Your task to perform on an android device: Clear the shopping cart on ebay.com. Search for "macbook pro" on ebay.com, select the first entry, add it to the cart, then select checkout. Image 0: 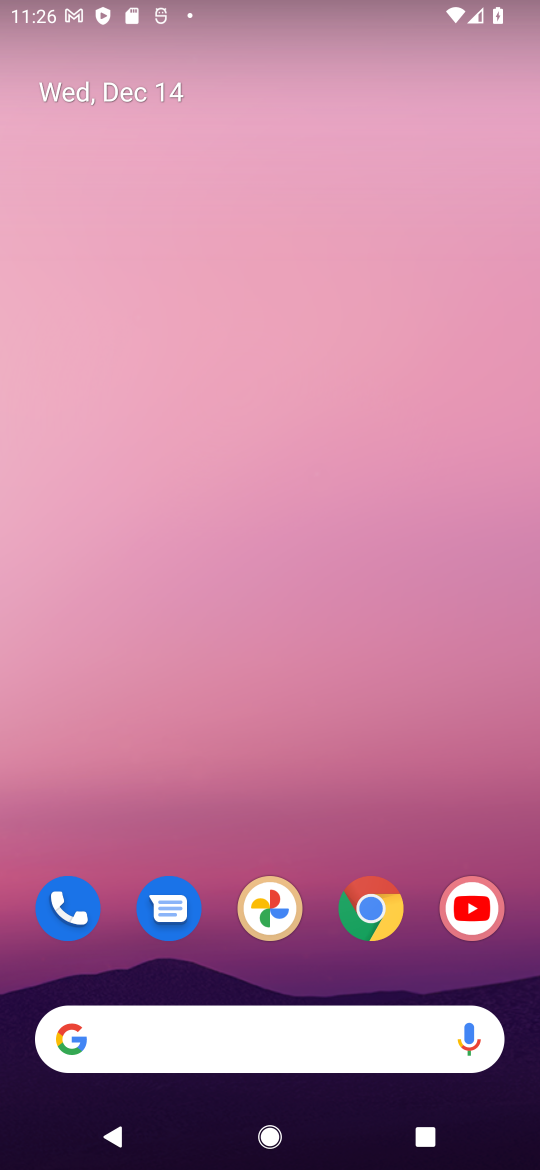
Step 0: click (375, 907)
Your task to perform on an android device: Clear the shopping cart on ebay.com. Search for "macbook pro" on ebay.com, select the first entry, add it to the cart, then select checkout. Image 1: 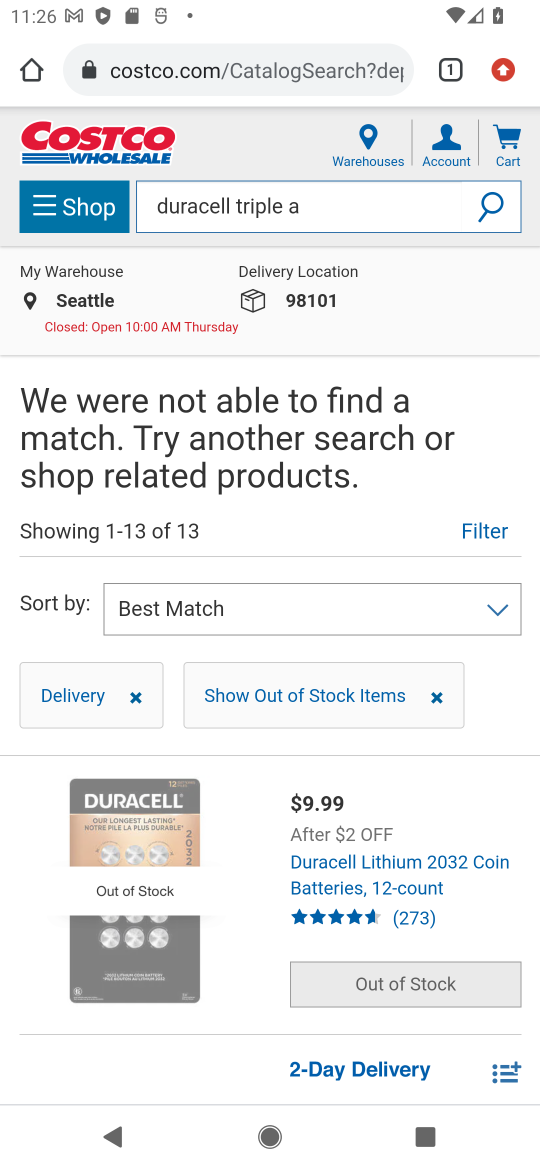
Step 1: click (186, 71)
Your task to perform on an android device: Clear the shopping cart on ebay.com. Search for "macbook pro" on ebay.com, select the first entry, add it to the cart, then select checkout. Image 2: 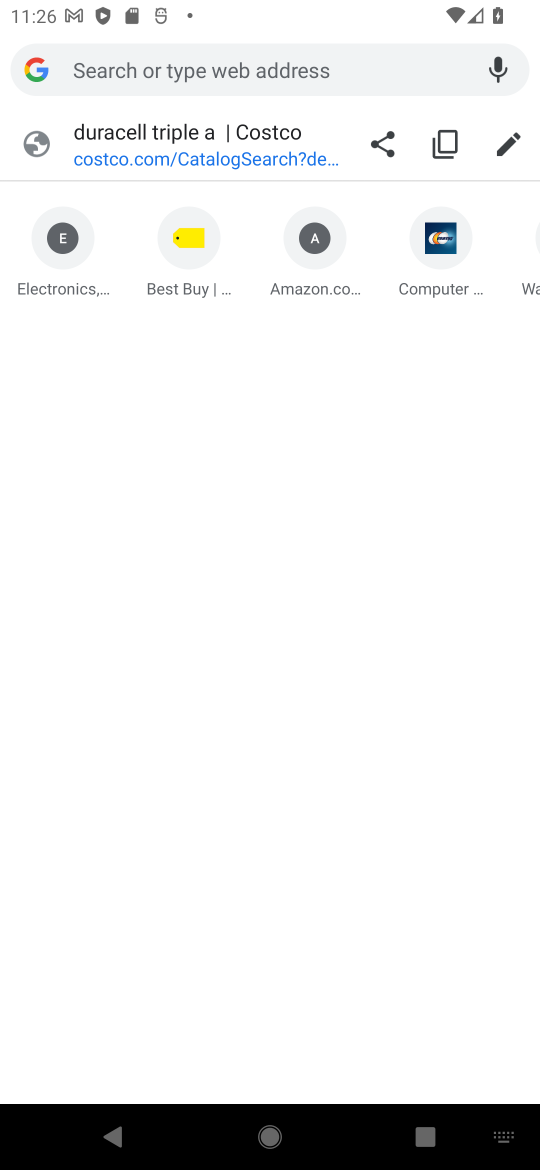
Step 2: type "ebay.com"
Your task to perform on an android device: Clear the shopping cart on ebay.com. Search for "macbook pro" on ebay.com, select the first entry, add it to the cart, then select checkout. Image 3: 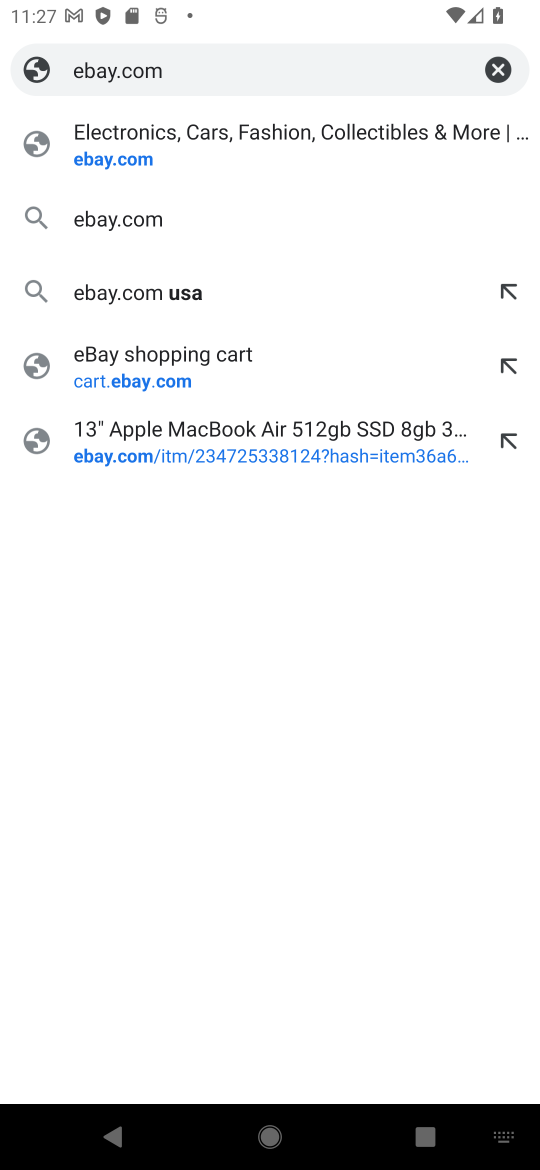
Step 3: click (97, 155)
Your task to perform on an android device: Clear the shopping cart on ebay.com. Search for "macbook pro" on ebay.com, select the first entry, add it to the cart, then select checkout. Image 4: 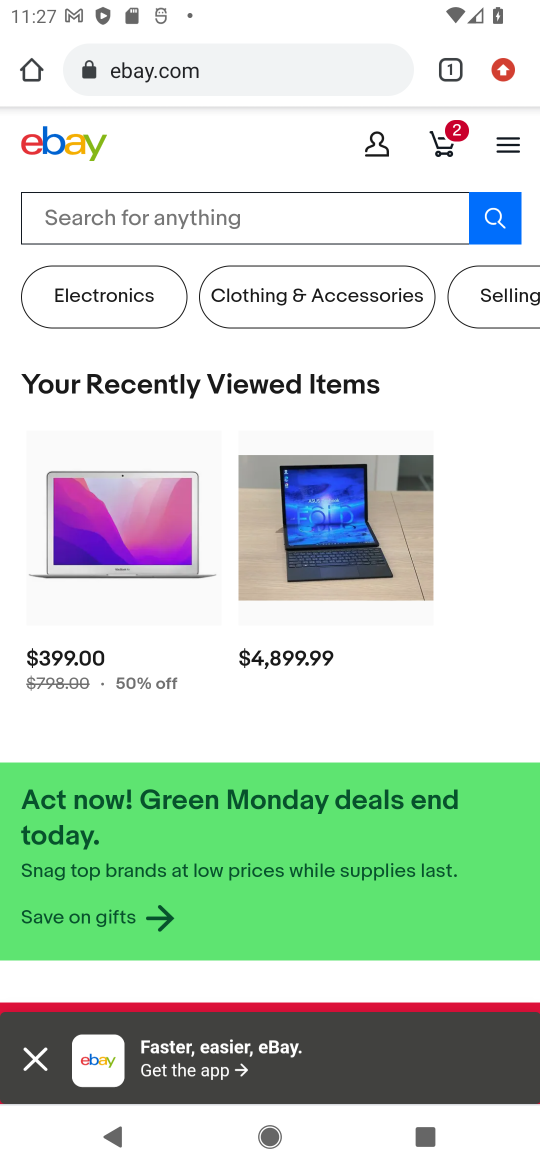
Step 4: click (446, 142)
Your task to perform on an android device: Clear the shopping cart on ebay.com. Search for "macbook pro" on ebay.com, select the first entry, add it to the cart, then select checkout. Image 5: 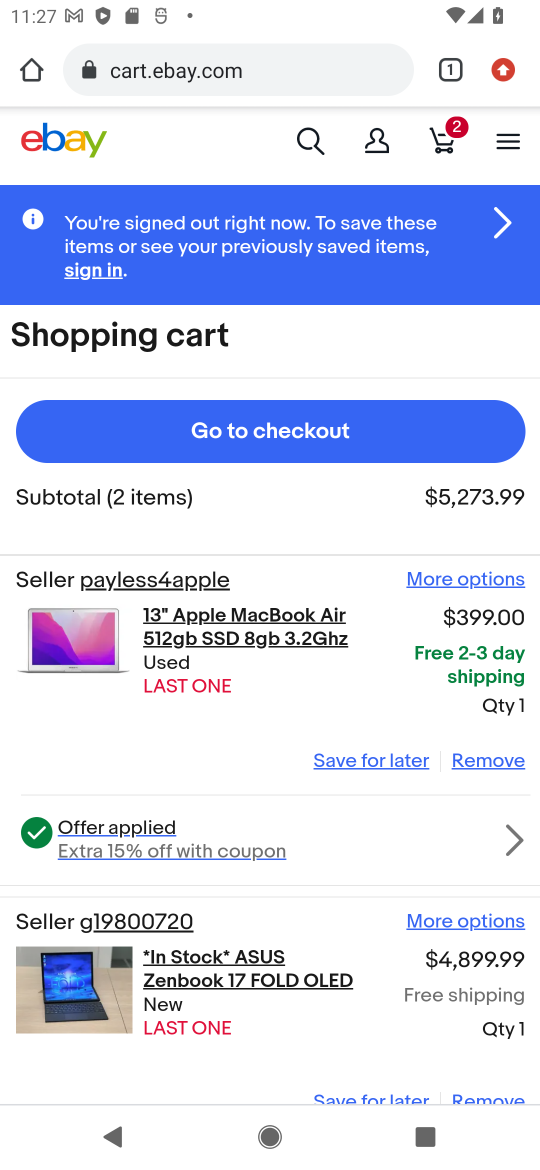
Step 5: click (469, 768)
Your task to perform on an android device: Clear the shopping cart on ebay.com. Search for "macbook pro" on ebay.com, select the first entry, add it to the cart, then select checkout. Image 6: 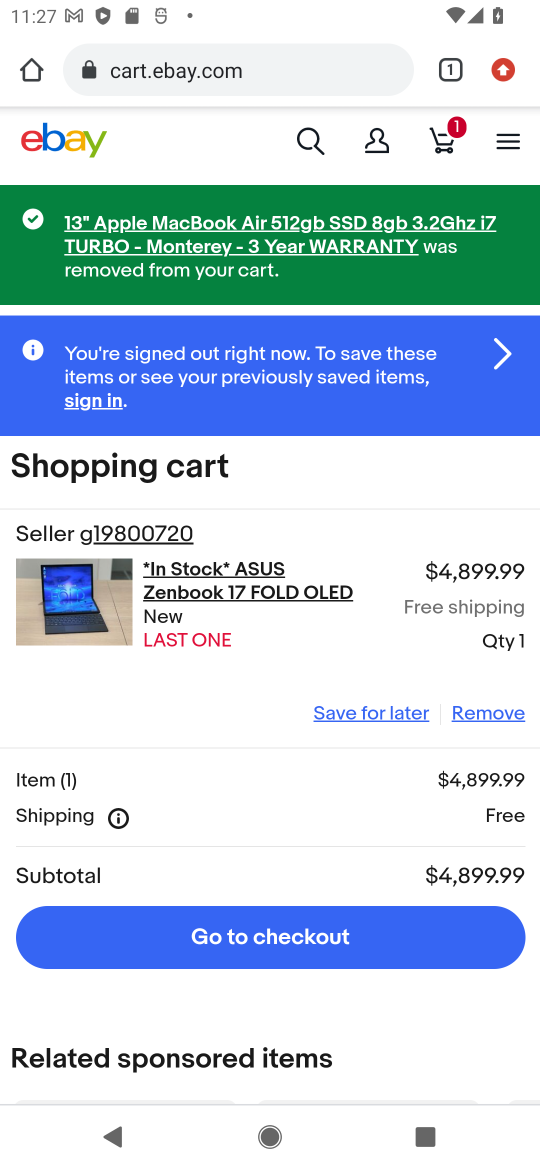
Step 6: click (481, 716)
Your task to perform on an android device: Clear the shopping cart on ebay.com. Search for "macbook pro" on ebay.com, select the first entry, add it to the cart, then select checkout. Image 7: 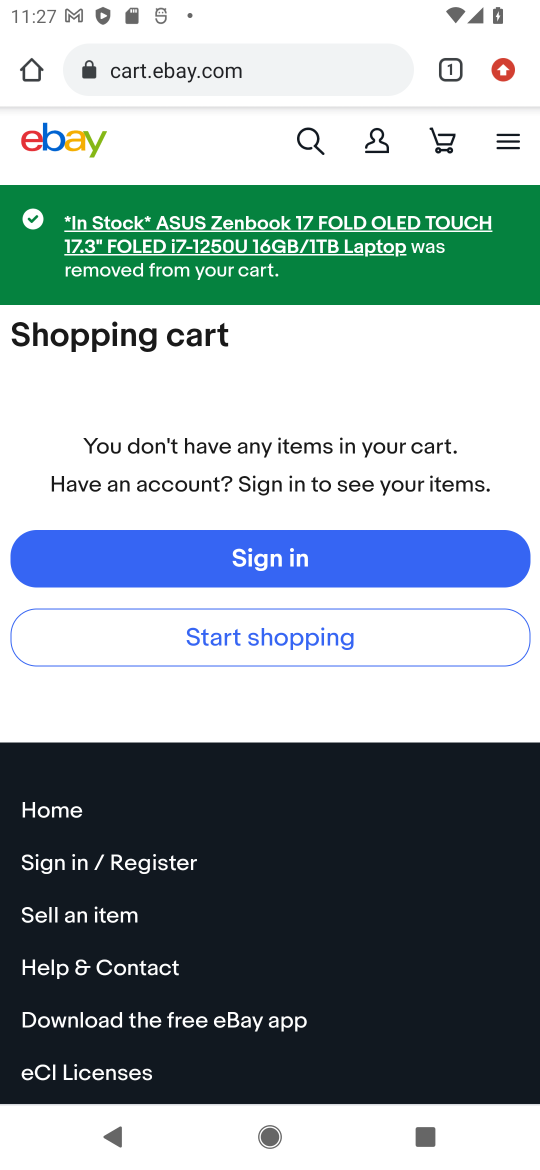
Step 7: click (313, 144)
Your task to perform on an android device: Clear the shopping cart on ebay.com. Search for "macbook pro" on ebay.com, select the first entry, add it to the cart, then select checkout. Image 8: 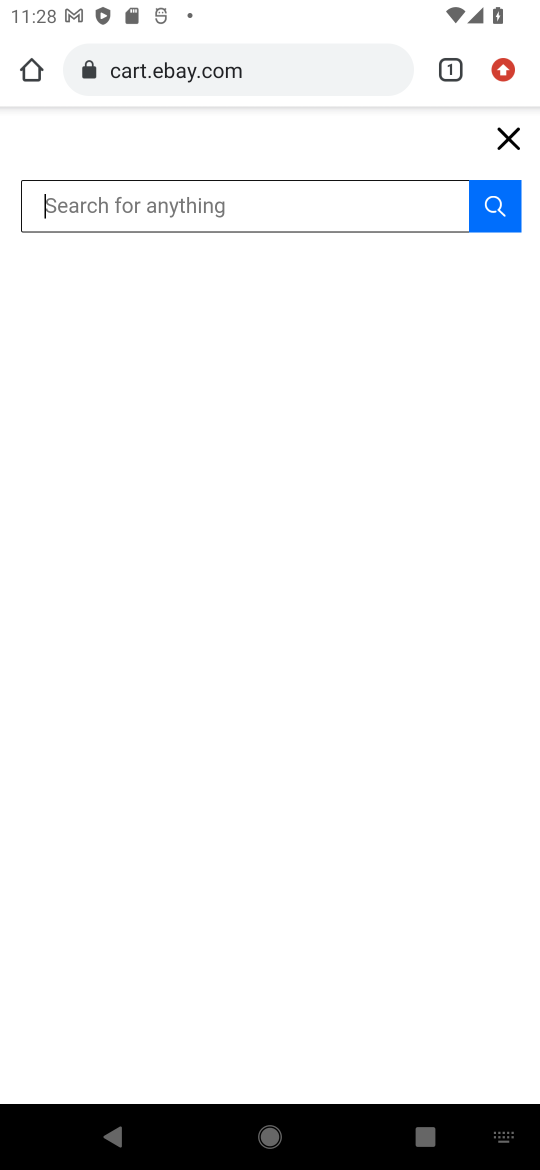
Step 8: click (190, 207)
Your task to perform on an android device: Clear the shopping cart on ebay.com. Search for "macbook pro" on ebay.com, select the first entry, add it to the cart, then select checkout. Image 9: 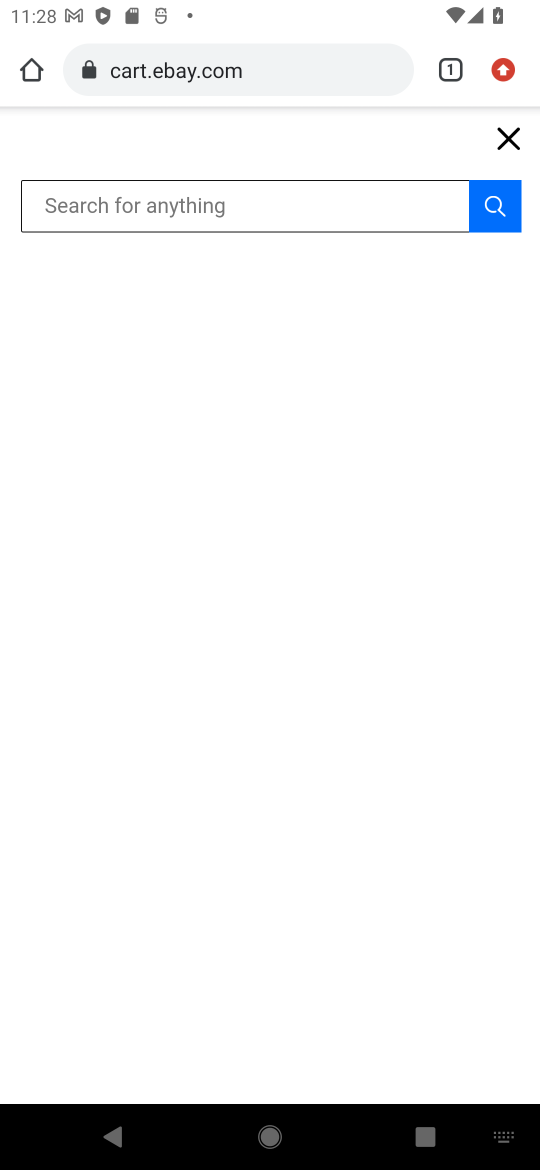
Step 9: type "macbook pro"
Your task to perform on an android device: Clear the shopping cart on ebay.com. Search for "macbook pro" on ebay.com, select the first entry, add it to the cart, then select checkout. Image 10: 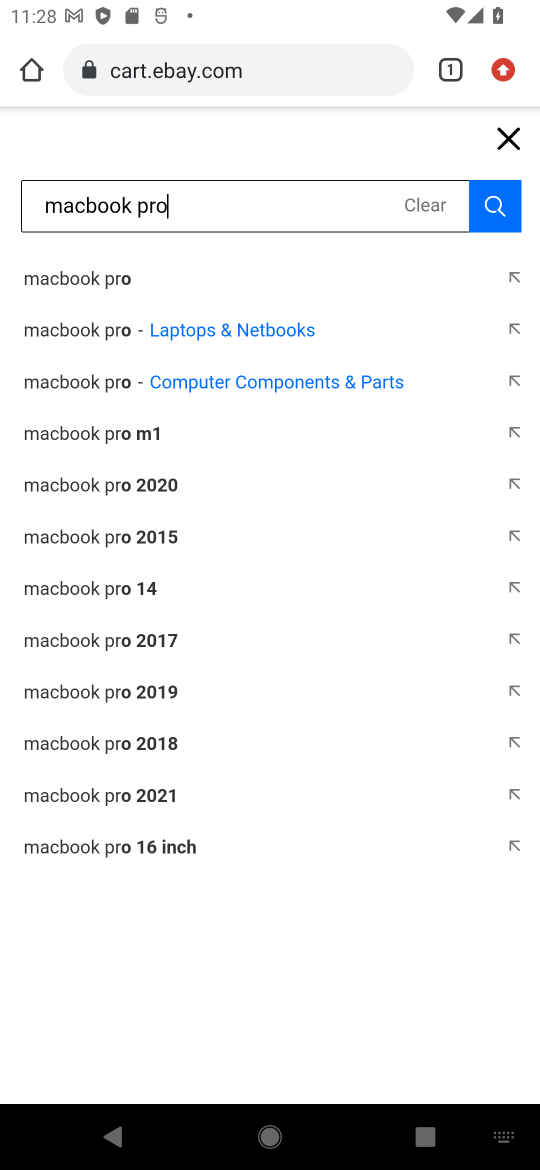
Step 10: click (87, 287)
Your task to perform on an android device: Clear the shopping cart on ebay.com. Search for "macbook pro" on ebay.com, select the first entry, add it to the cart, then select checkout. Image 11: 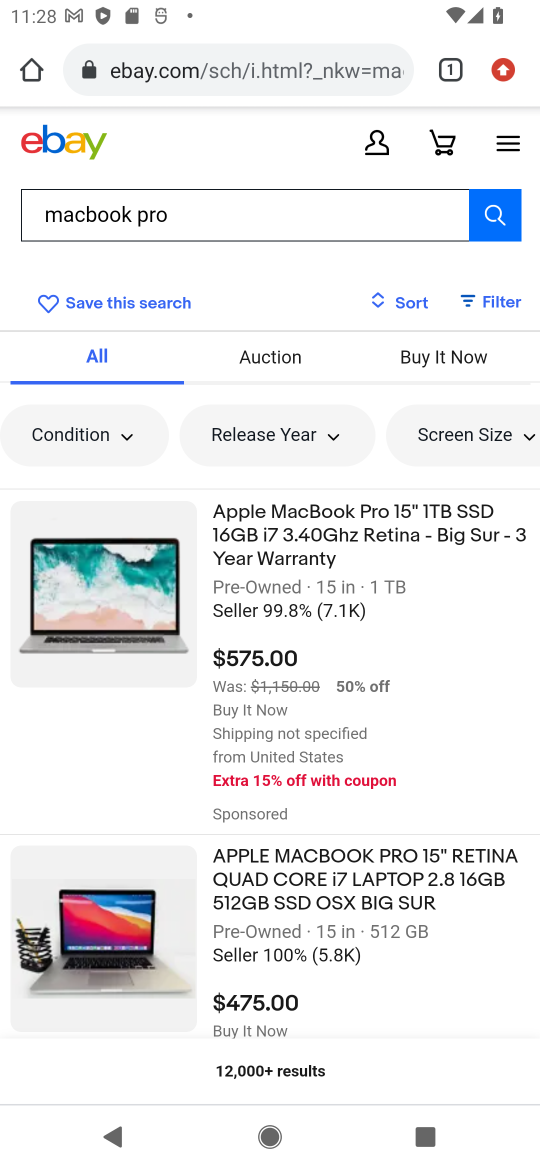
Step 11: click (277, 557)
Your task to perform on an android device: Clear the shopping cart on ebay.com. Search for "macbook pro" on ebay.com, select the first entry, add it to the cart, then select checkout. Image 12: 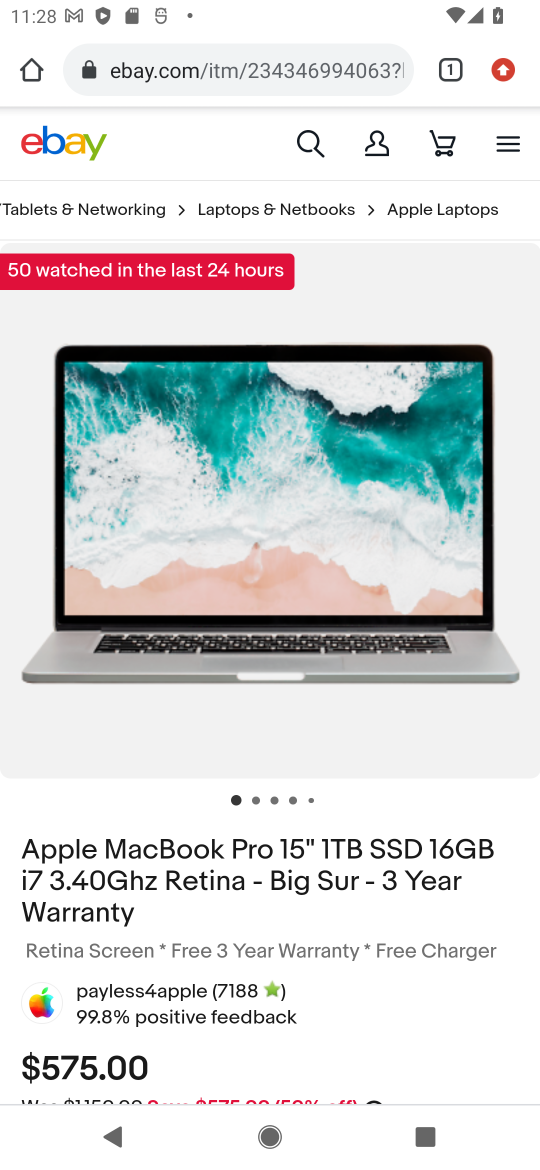
Step 12: drag from (239, 782) to (230, 582)
Your task to perform on an android device: Clear the shopping cart on ebay.com. Search for "macbook pro" on ebay.com, select the first entry, add it to the cart, then select checkout. Image 13: 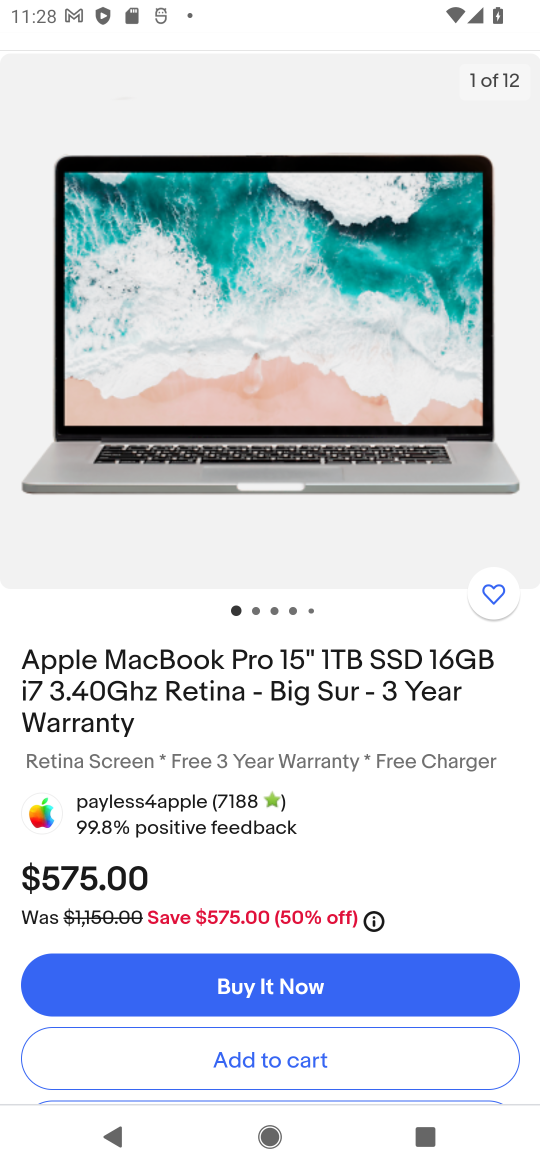
Step 13: drag from (238, 815) to (219, 588)
Your task to perform on an android device: Clear the shopping cart on ebay.com. Search for "macbook pro" on ebay.com, select the first entry, add it to the cart, then select checkout. Image 14: 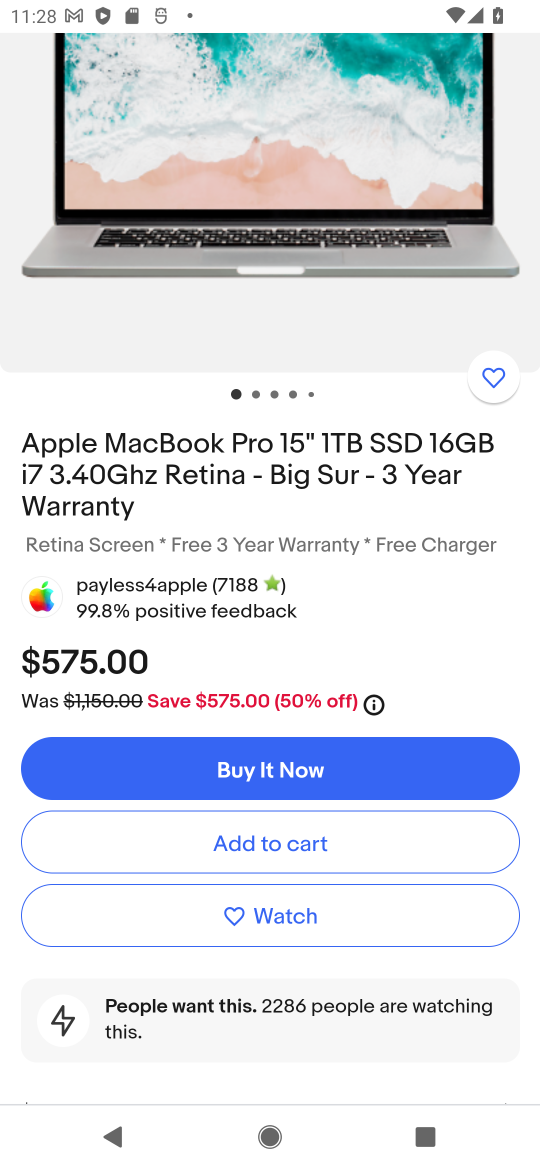
Step 14: click (221, 835)
Your task to perform on an android device: Clear the shopping cart on ebay.com. Search for "macbook pro" on ebay.com, select the first entry, add it to the cart, then select checkout. Image 15: 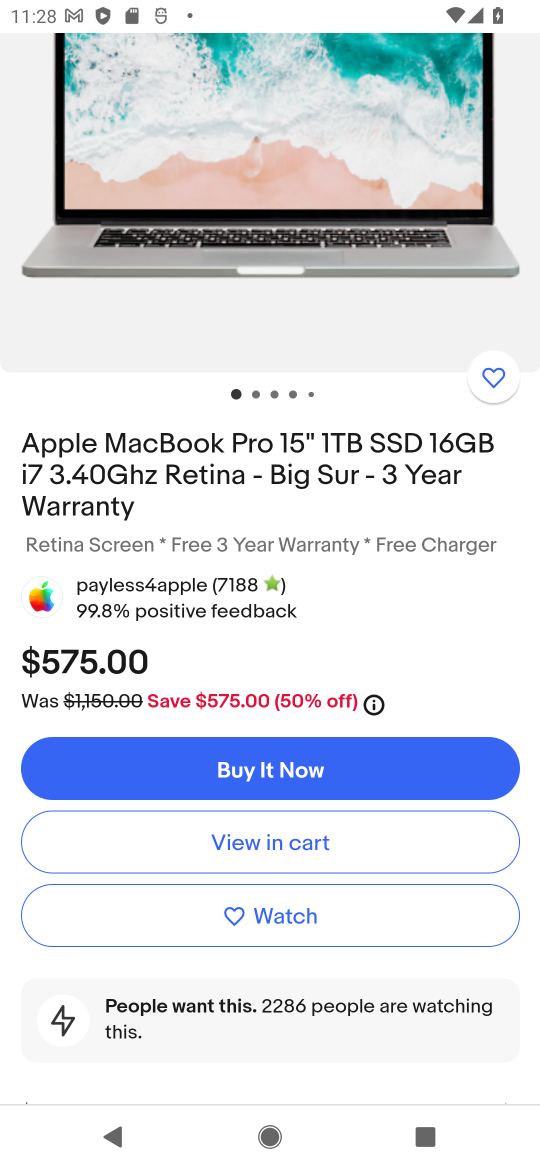
Step 15: click (221, 837)
Your task to perform on an android device: Clear the shopping cart on ebay.com. Search for "macbook pro" on ebay.com, select the first entry, add it to the cart, then select checkout. Image 16: 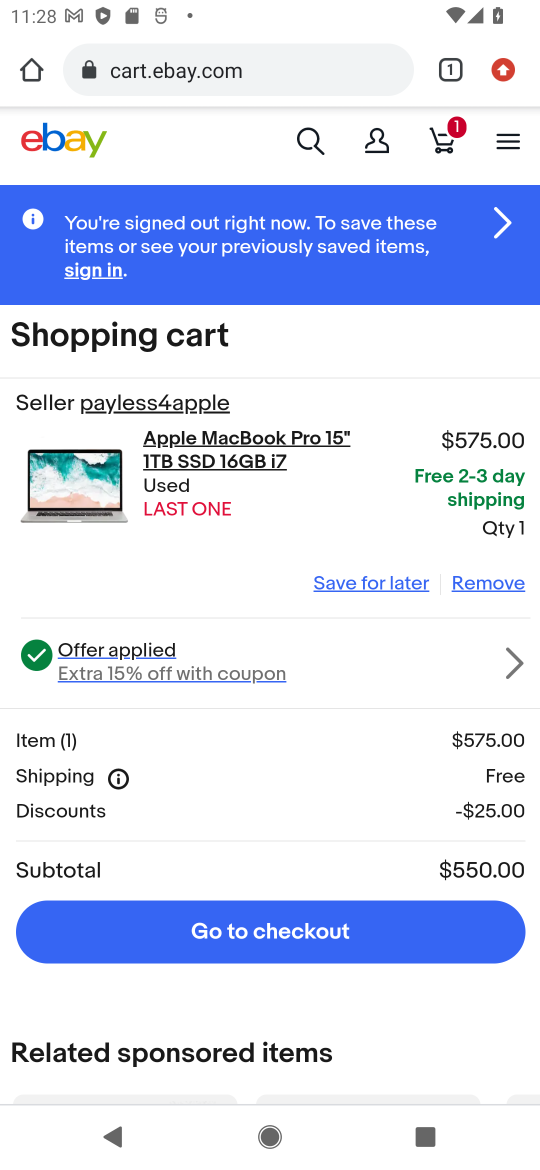
Step 16: click (248, 927)
Your task to perform on an android device: Clear the shopping cart on ebay.com. Search for "macbook pro" on ebay.com, select the first entry, add it to the cart, then select checkout. Image 17: 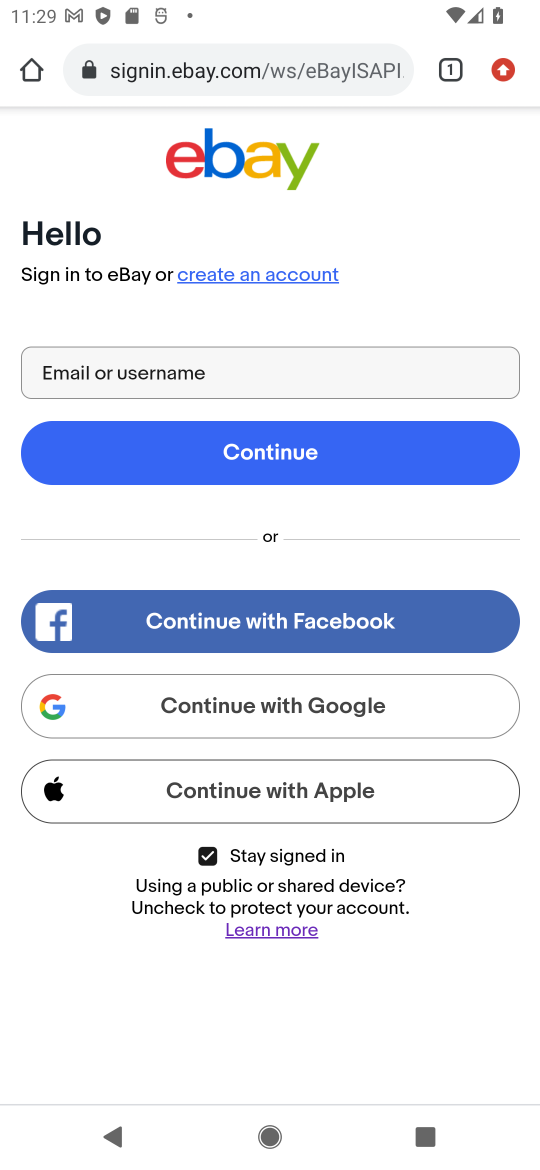
Step 17: task complete